Your task to perform on an android device: Open my contact list Image 0: 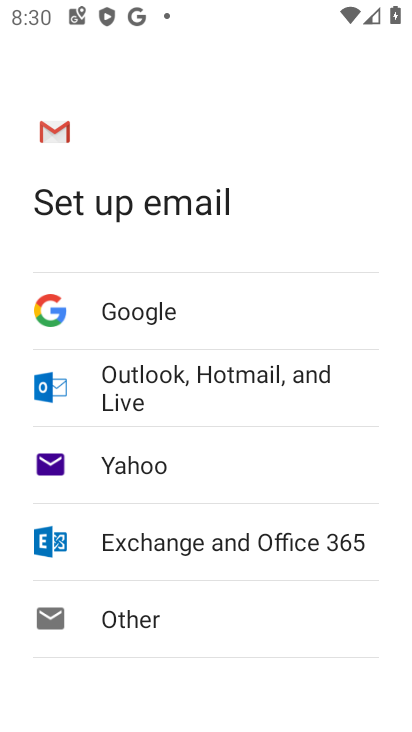
Step 0: press home button
Your task to perform on an android device: Open my contact list Image 1: 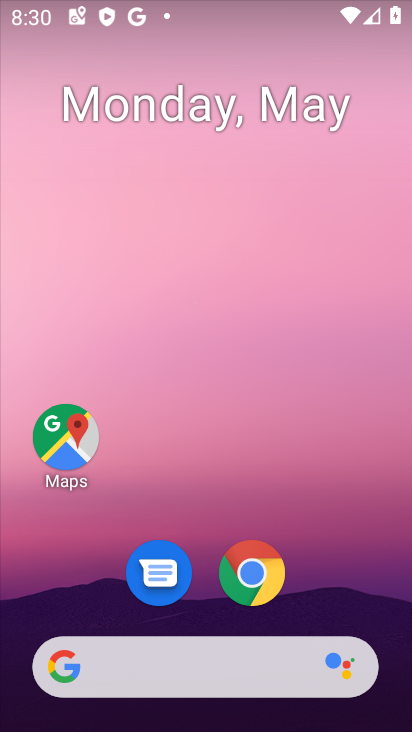
Step 1: drag from (236, 655) to (248, 135)
Your task to perform on an android device: Open my contact list Image 2: 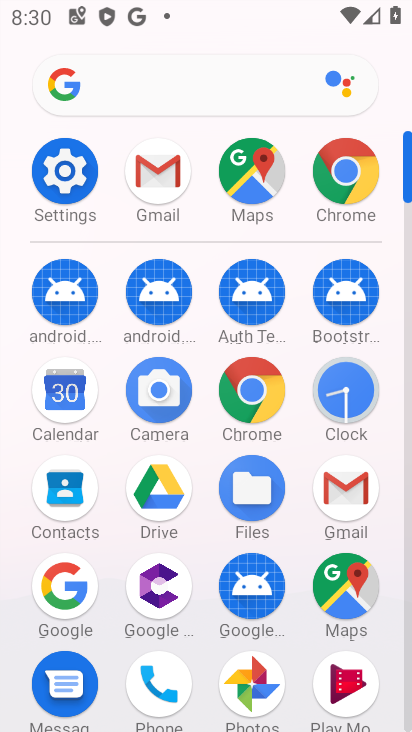
Step 2: click (69, 501)
Your task to perform on an android device: Open my contact list Image 3: 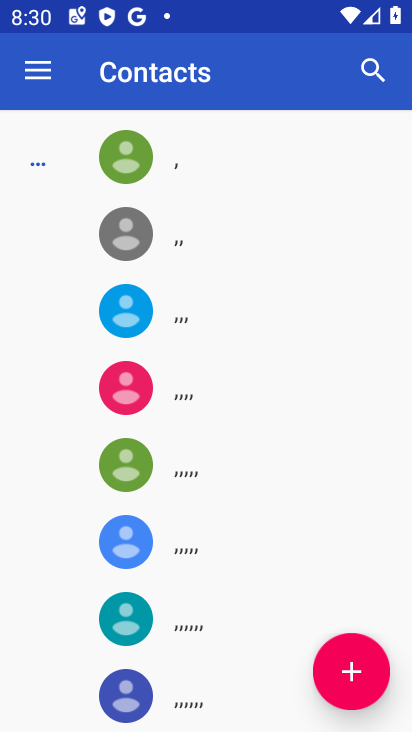
Step 3: task complete